Your task to perform on an android device: Open Google Chrome Image 0: 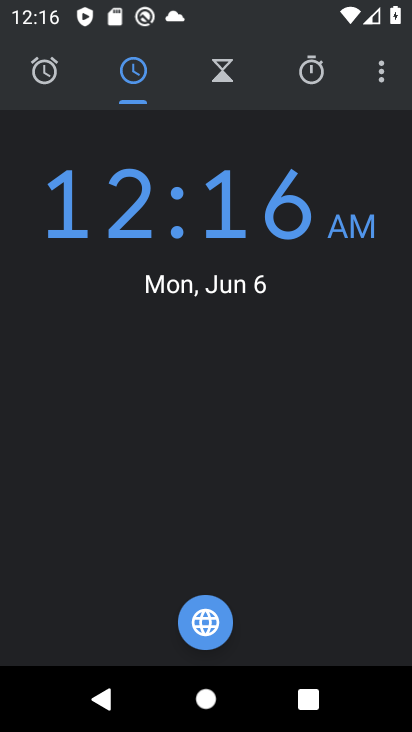
Step 0: press home button
Your task to perform on an android device: Open Google Chrome Image 1: 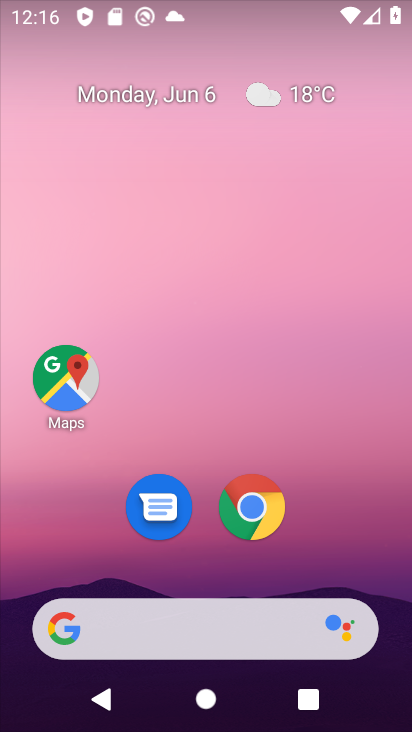
Step 1: click (246, 507)
Your task to perform on an android device: Open Google Chrome Image 2: 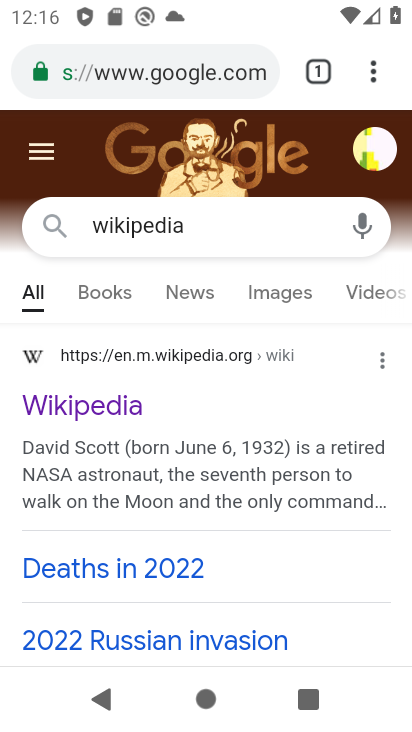
Step 2: task complete